Your task to perform on an android device: Go to Yahoo.com Image 0: 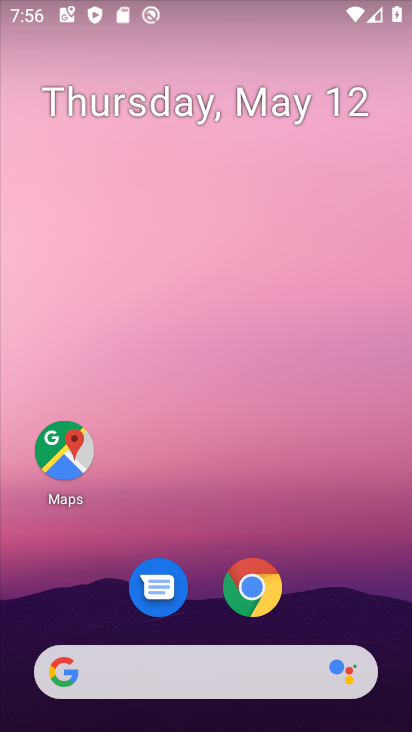
Step 0: drag from (293, 447) to (327, 131)
Your task to perform on an android device: Go to Yahoo.com Image 1: 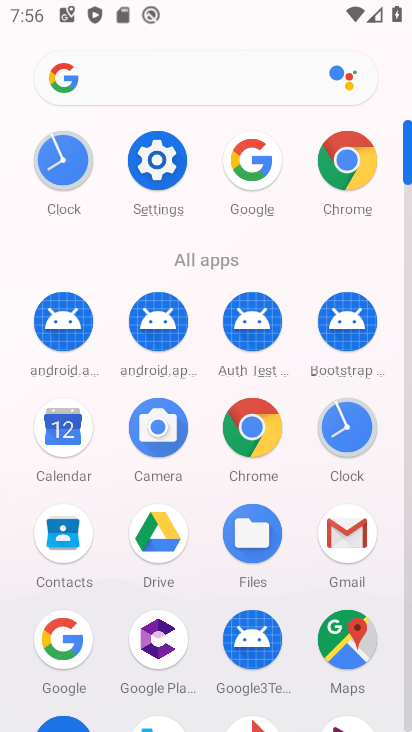
Step 1: drag from (261, 622) to (303, 336)
Your task to perform on an android device: Go to Yahoo.com Image 2: 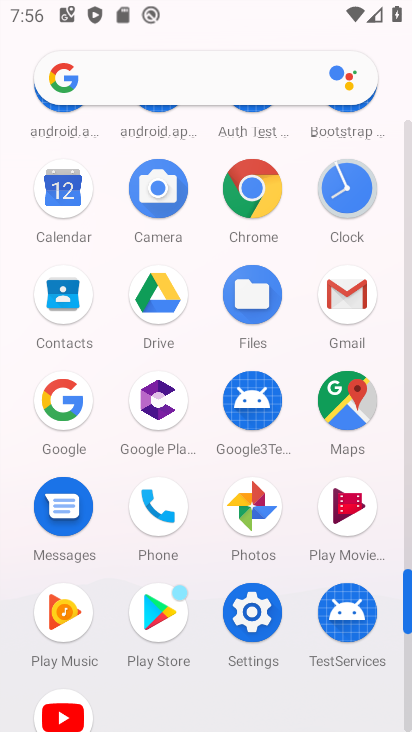
Step 2: click (250, 186)
Your task to perform on an android device: Go to Yahoo.com Image 3: 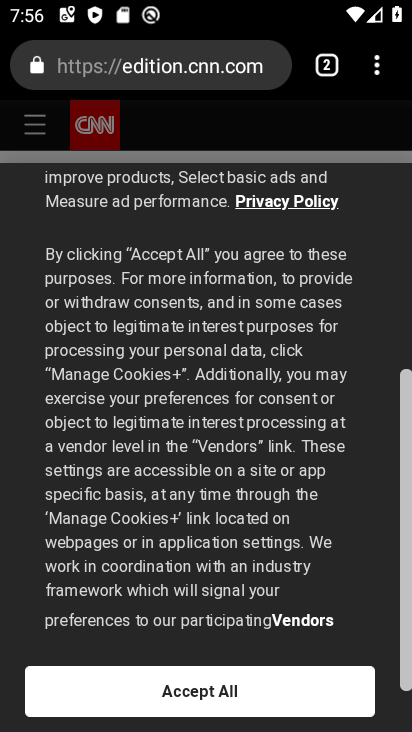
Step 3: click (370, 65)
Your task to perform on an android device: Go to Yahoo.com Image 4: 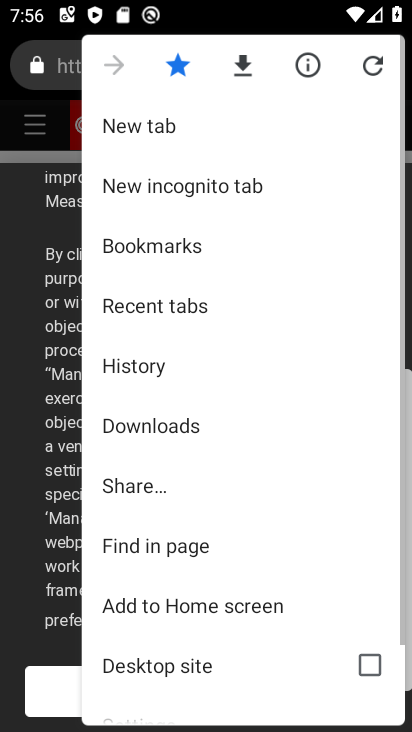
Step 4: click (141, 116)
Your task to perform on an android device: Go to Yahoo.com Image 5: 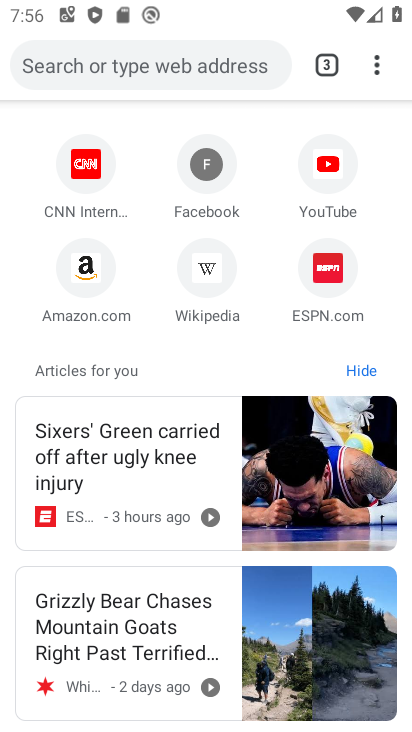
Step 5: click (138, 61)
Your task to perform on an android device: Go to Yahoo.com Image 6: 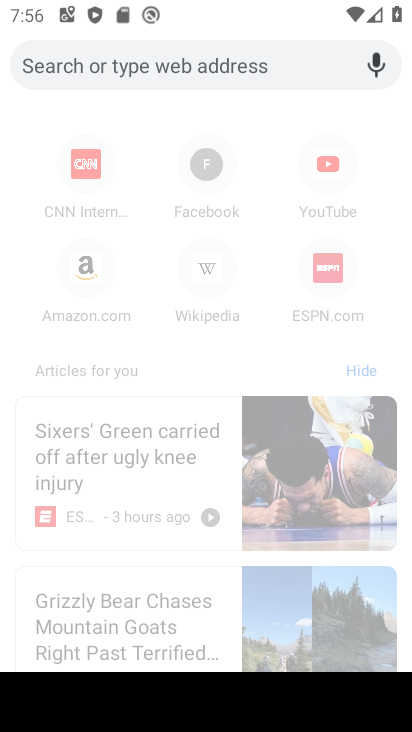
Step 6: type "Yahoo.com"
Your task to perform on an android device: Go to Yahoo.com Image 7: 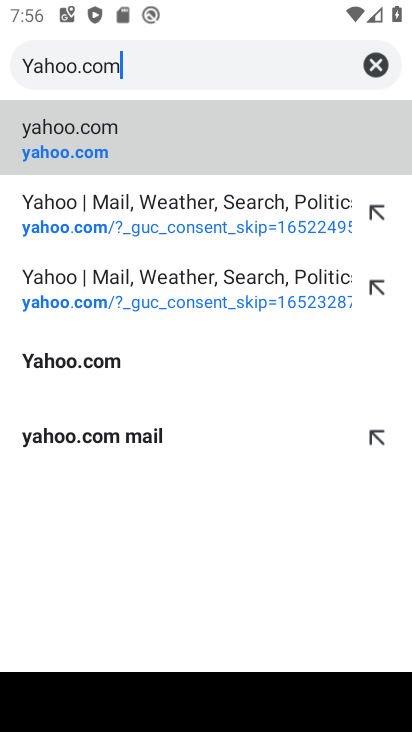
Step 7: click (212, 136)
Your task to perform on an android device: Go to Yahoo.com Image 8: 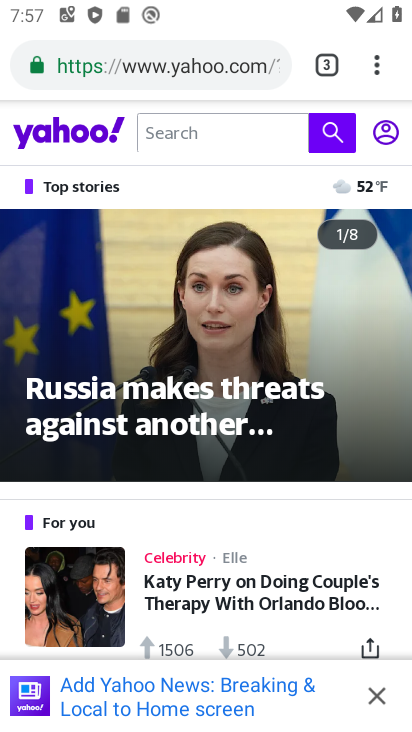
Step 8: task complete